Your task to perform on an android device: Search for "asus rog" on walmart.com, select the first entry, add it to the cart, then select checkout. Image 0: 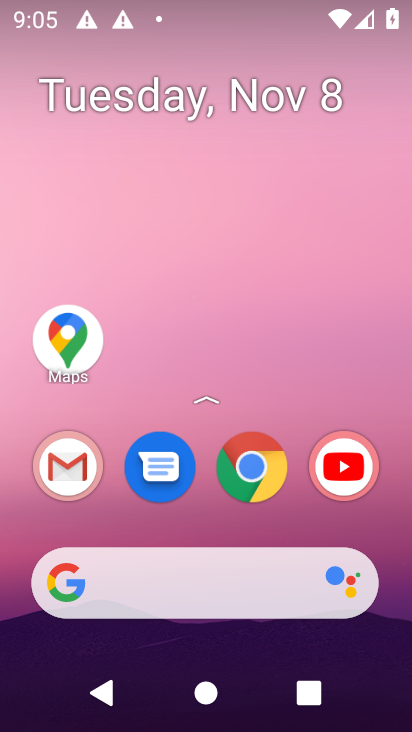
Step 0: click (182, 601)
Your task to perform on an android device: Search for "asus rog" on walmart.com, select the first entry, add it to the cart, then select checkout. Image 1: 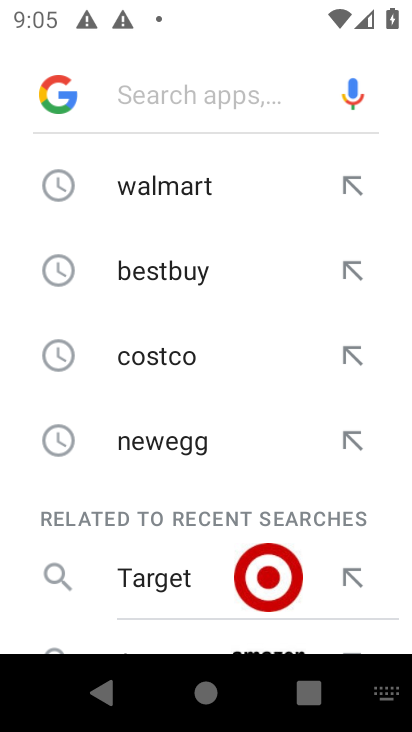
Step 1: click (251, 163)
Your task to perform on an android device: Search for "asus rog" on walmart.com, select the first entry, add it to the cart, then select checkout. Image 2: 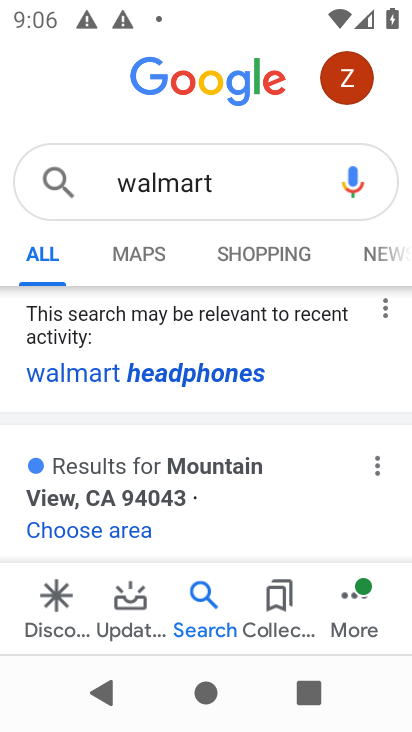
Step 2: task complete